Your task to perform on an android device: Open Youtube and go to the subscriptions tab Image 0: 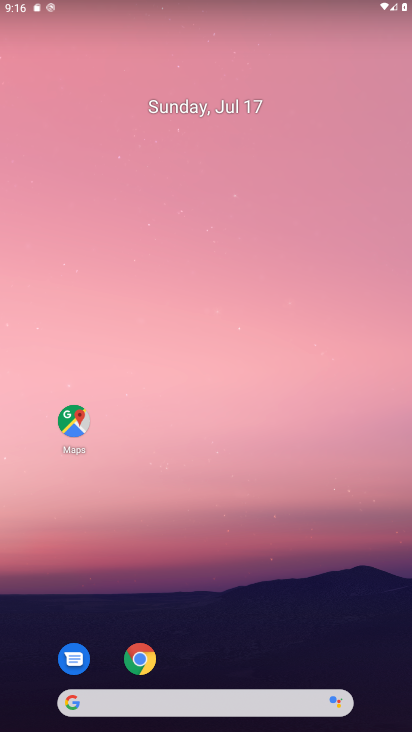
Step 0: drag from (183, 690) to (291, 152)
Your task to perform on an android device: Open Youtube and go to the subscriptions tab Image 1: 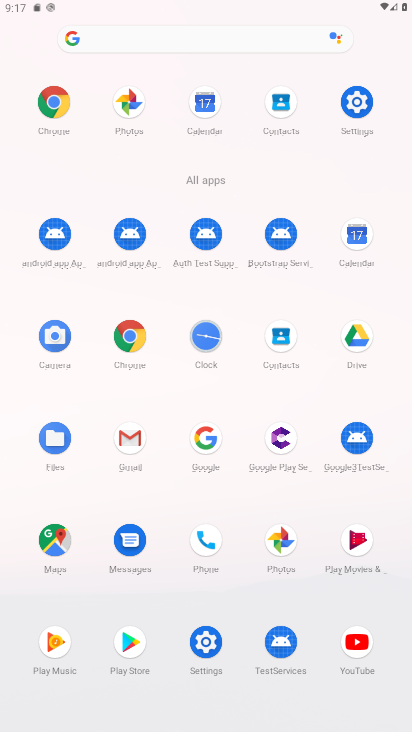
Step 1: click (346, 640)
Your task to perform on an android device: Open Youtube and go to the subscriptions tab Image 2: 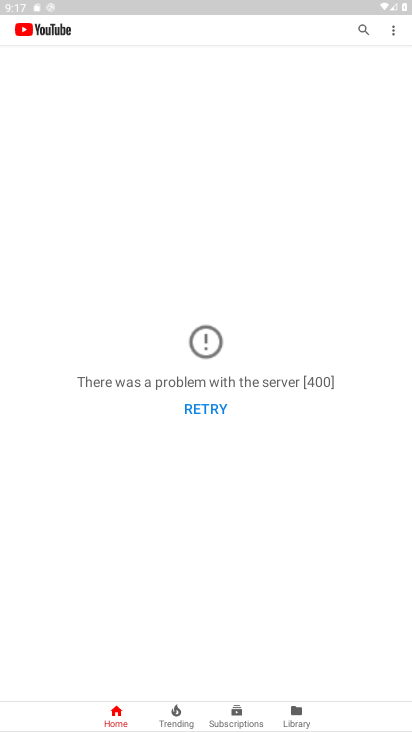
Step 2: click (241, 714)
Your task to perform on an android device: Open Youtube and go to the subscriptions tab Image 3: 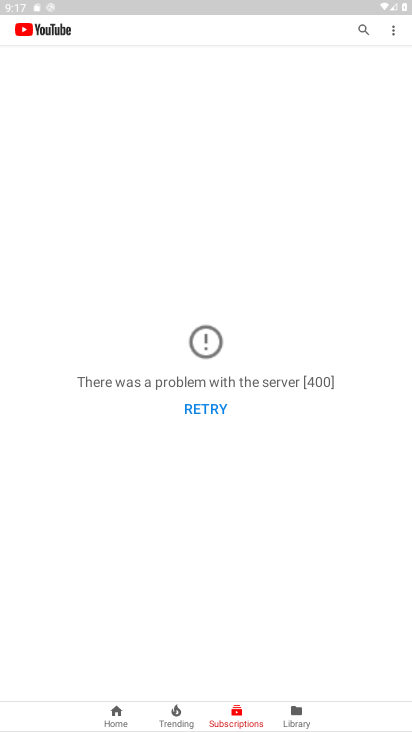
Step 3: task complete